Your task to perform on an android device: manage bookmarks in the chrome app Image 0: 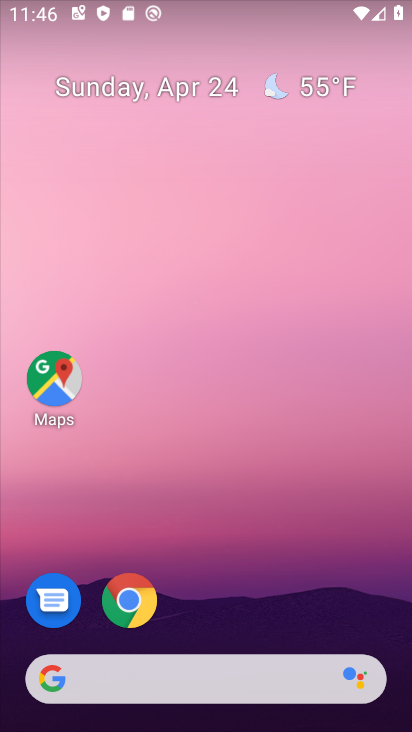
Step 0: click (133, 608)
Your task to perform on an android device: manage bookmarks in the chrome app Image 1: 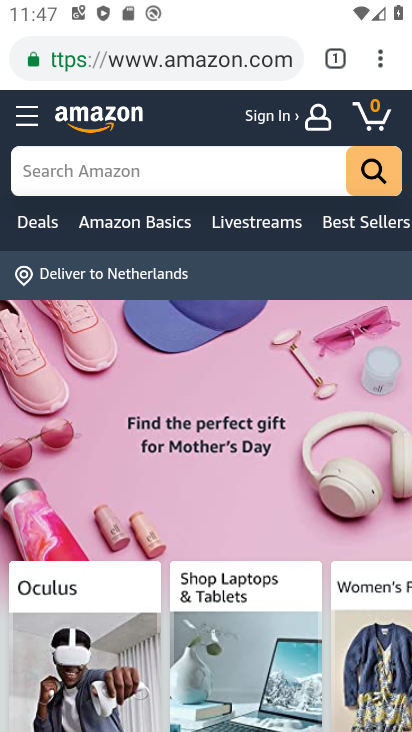
Step 1: click (373, 56)
Your task to perform on an android device: manage bookmarks in the chrome app Image 2: 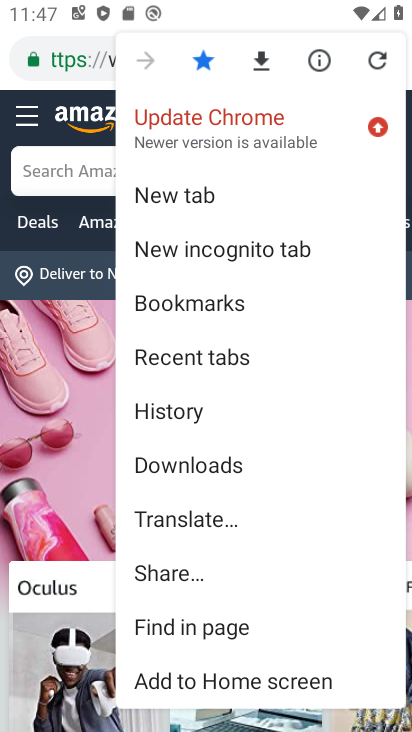
Step 2: drag from (219, 611) to (238, 214)
Your task to perform on an android device: manage bookmarks in the chrome app Image 3: 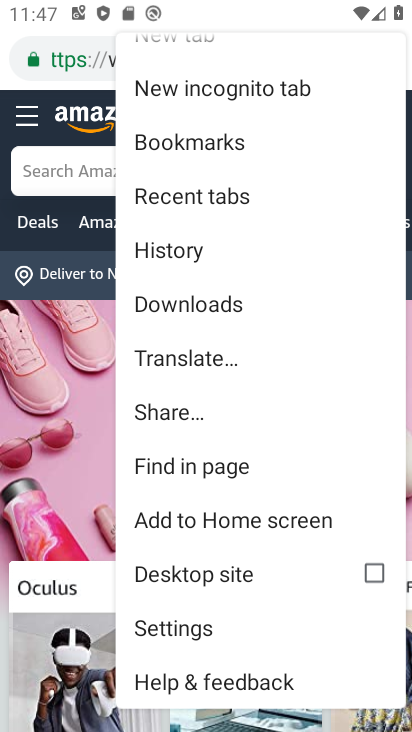
Step 3: click (206, 158)
Your task to perform on an android device: manage bookmarks in the chrome app Image 4: 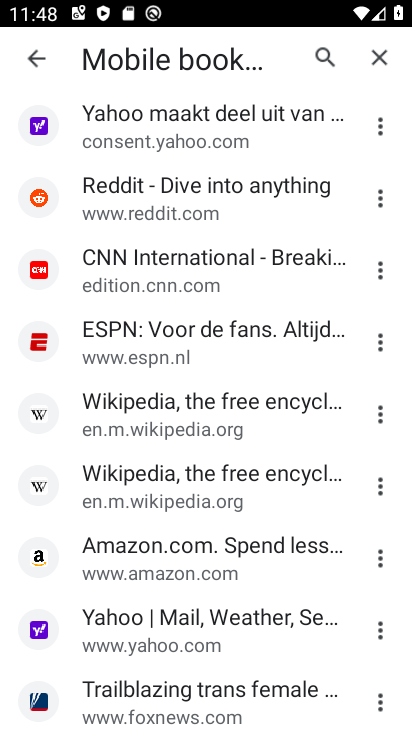
Step 4: click (384, 622)
Your task to perform on an android device: manage bookmarks in the chrome app Image 5: 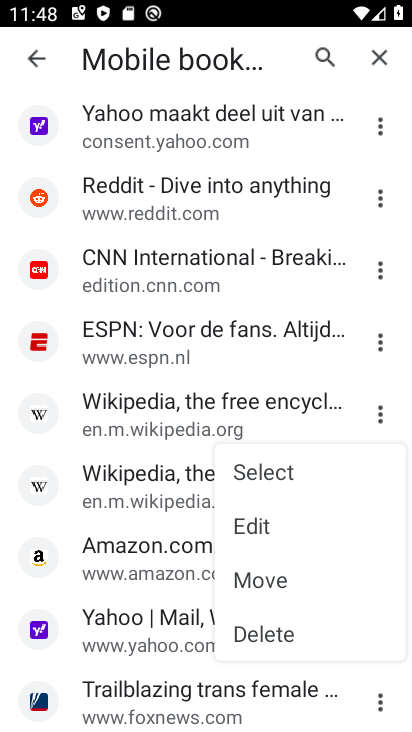
Step 5: click (253, 627)
Your task to perform on an android device: manage bookmarks in the chrome app Image 6: 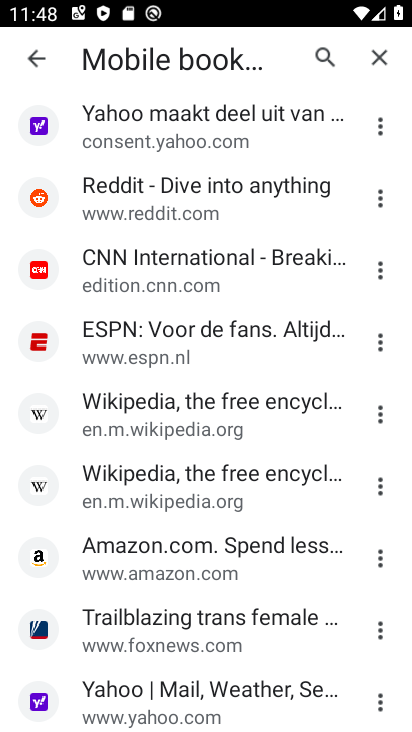
Step 6: task complete